Your task to perform on an android device: Go to accessibility settings Image 0: 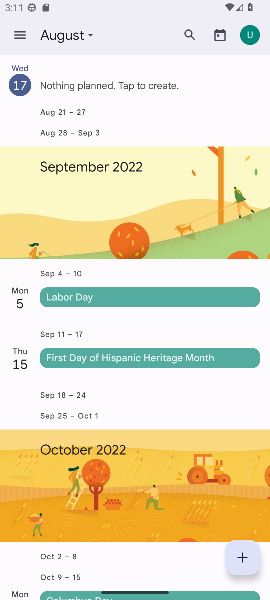
Step 0: press home button
Your task to perform on an android device: Go to accessibility settings Image 1: 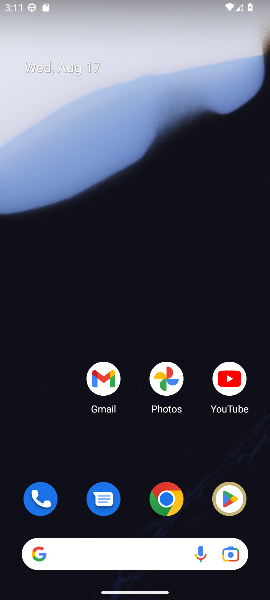
Step 1: drag from (155, 376) to (186, 5)
Your task to perform on an android device: Go to accessibility settings Image 2: 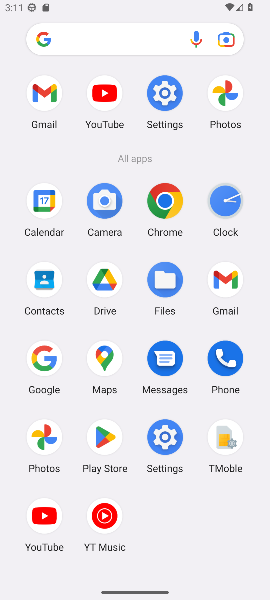
Step 2: click (162, 432)
Your task to perform on an android device: Go to accessibility settings Image 3: 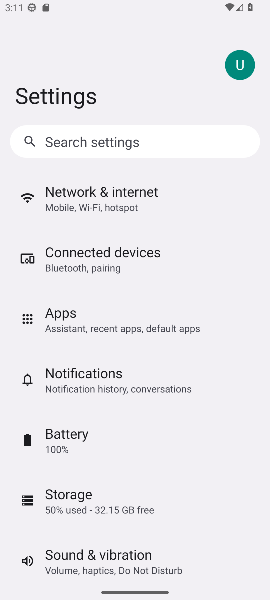
Step 3: drag from (198, 485) to (215, 106)
Your task to perform on an android device: Go to accessibility settings Image 4: 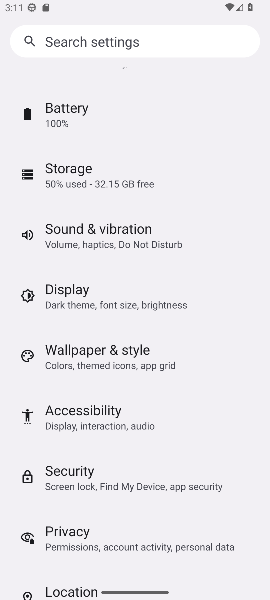
Step 4: click (99, 416)
Your task to perform on an android device: Go to accessibility settings Image 5: 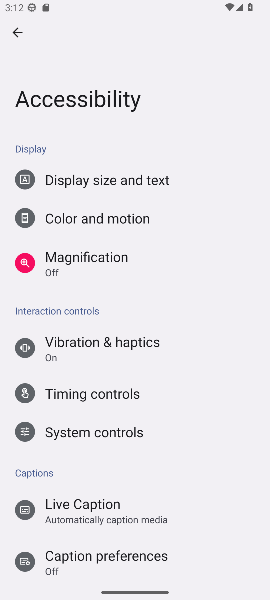
Step 5: task complete